Your task to perform on an android device: Open privacy settings Image 0: 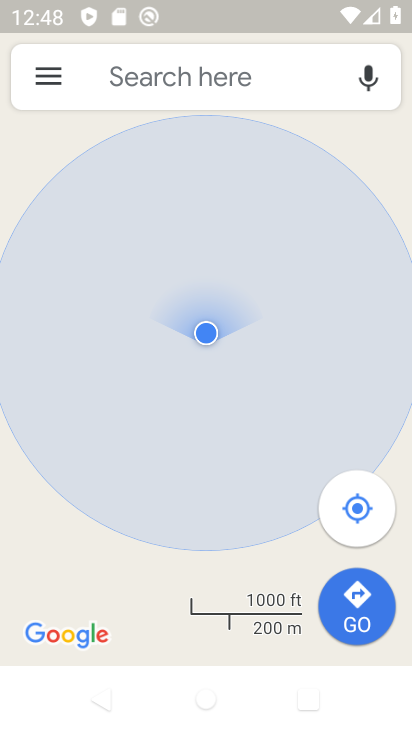
Step 0: press home button
Your task to perform on an android device: Open privacy settings Image 1: 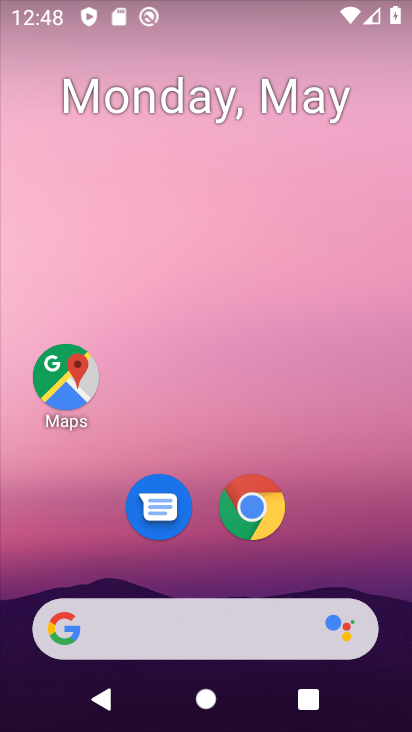
Step 1: drag from (322, 539) to (269, 75)
Your task to perform on an android device: Open privacy settings Image 2: 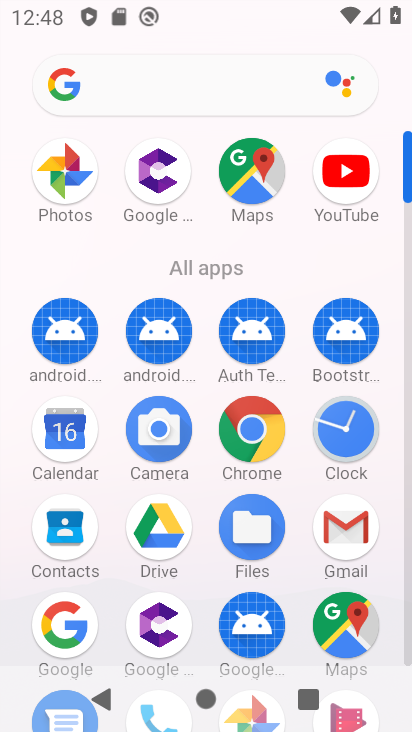
Step 2: drag from (297, 472) to (310, 15)
Your task to perform on an android device: Open privacy settings Image 3: 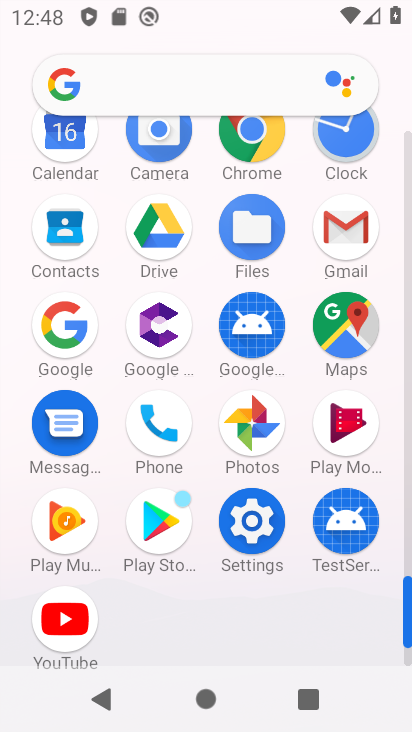
Step 3: click (249, 523)
Your task to perform on an android device: Open privacy settings Image 4: 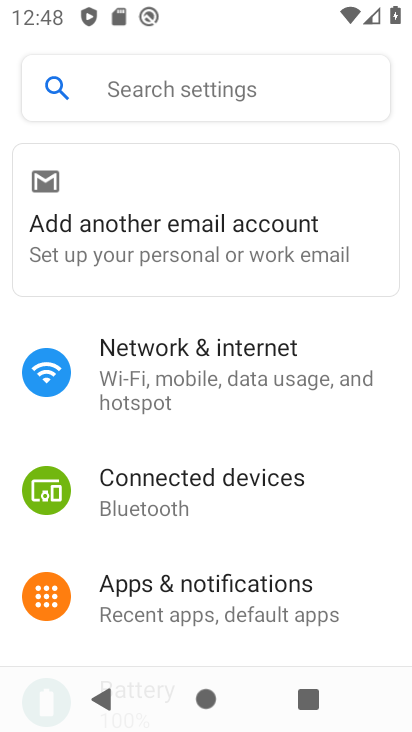
Step 4: drag from (267, 520) to (258, 164)
Your task to perform on an android device: Open privacy settings Image 5: 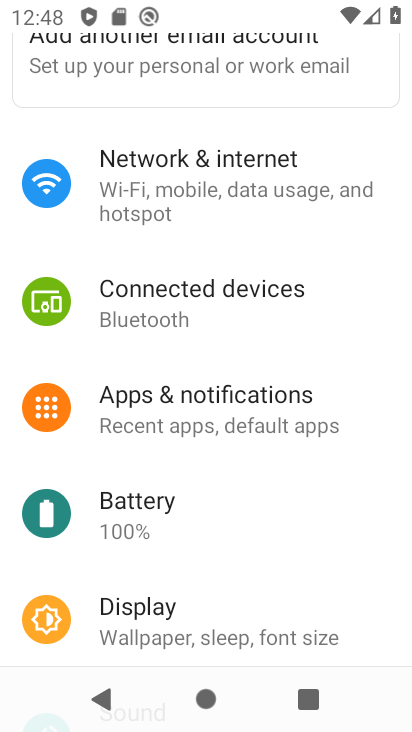
Step 5: drag from (193, 541) to (235, 189)
Your task to perform on an android device: Open privacy settings Image 6: 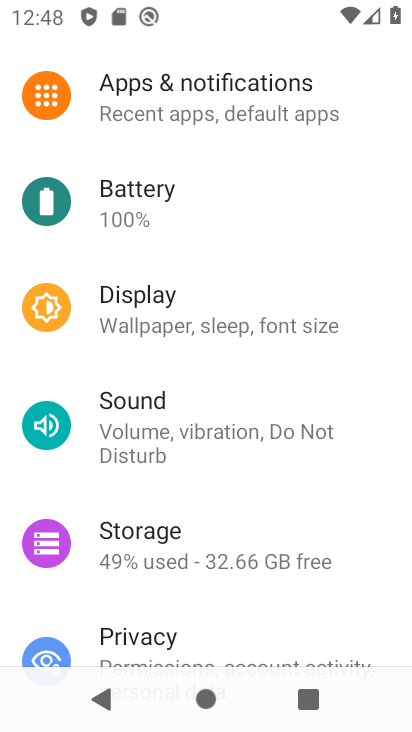
Step 6: click (158, 628)
Your task to perform on an android device: Open privacy settings Image 7: 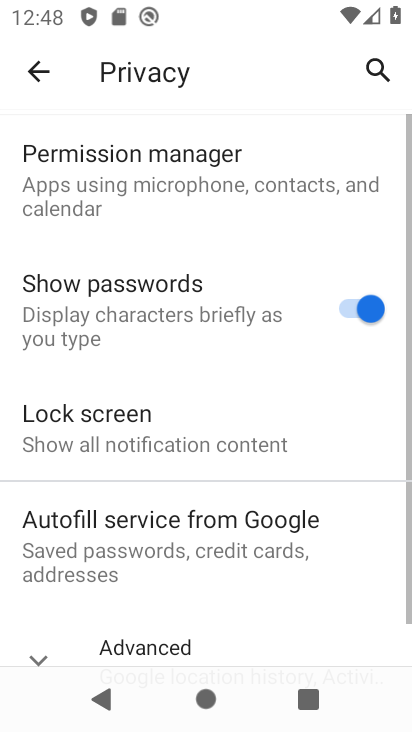
Step 7: task complete